Your task to perform on an android device: turn notification dots off Image 0: 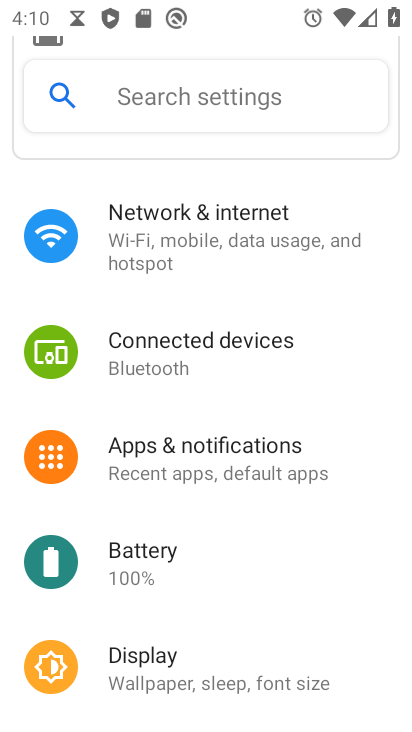
Step 0: click (221, 452)
Your task to perform on an android device: turn notification dots off Image 1: 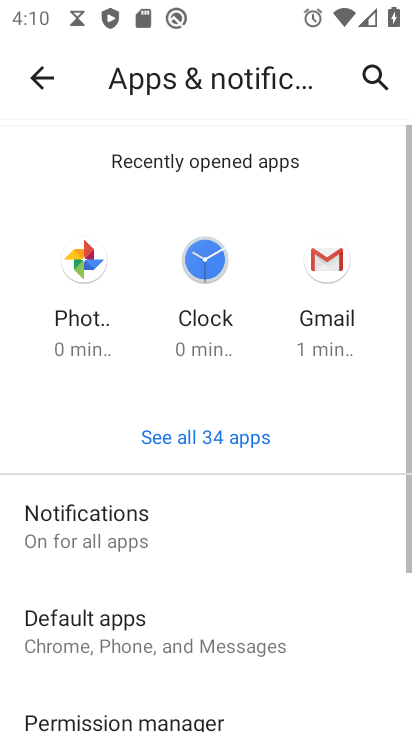
Step 1: click (165, 533)
Your task to perform on an android device: turn notification dots off Image 2: 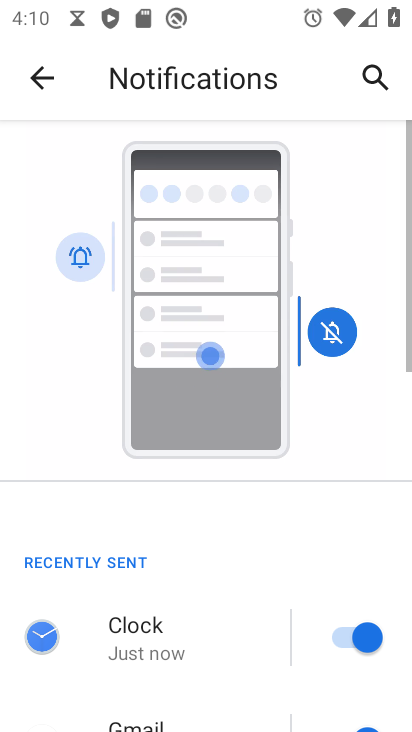
Step 2: drag from (246, 685) to (274, 125)
Your task to perform on an android device: turn notification dots off Image 3: 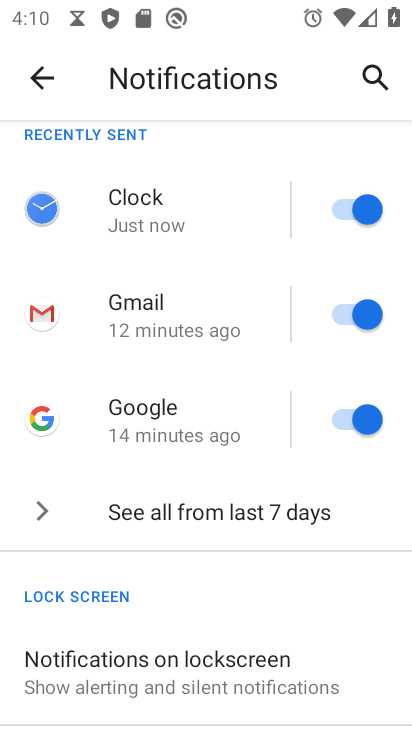
Step 3: drag from (235, 610) to (201, 233)
Your task to perform on an android device: turn notification dots off Image 4: 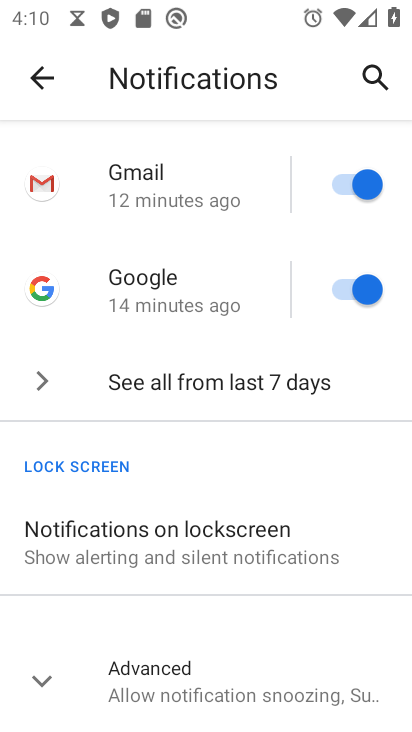
Step 4: click (204, 667)
Your task to perform on an android device: turn notification dots off Image 5: 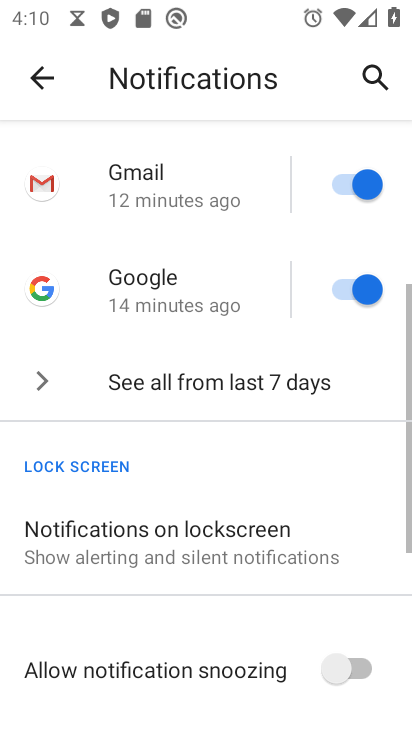
Step 5: drag from (258, 637) to (221, 150)
Your task to perform on an android device: turn notification dots off Image 6: 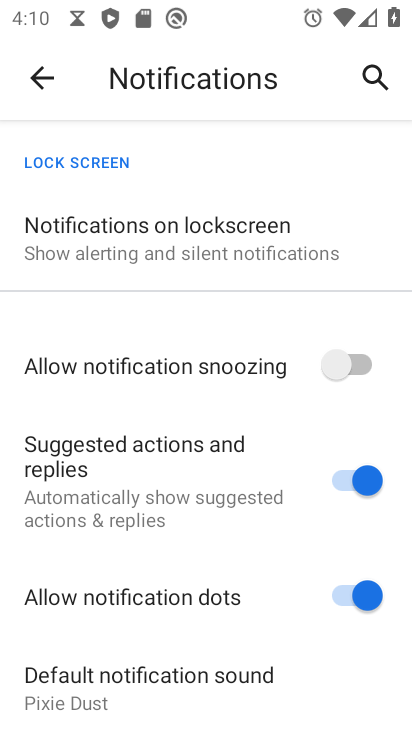
Step 6: click (362, 591)
Your task to perform on an android device: turn notification dots off Image 7: 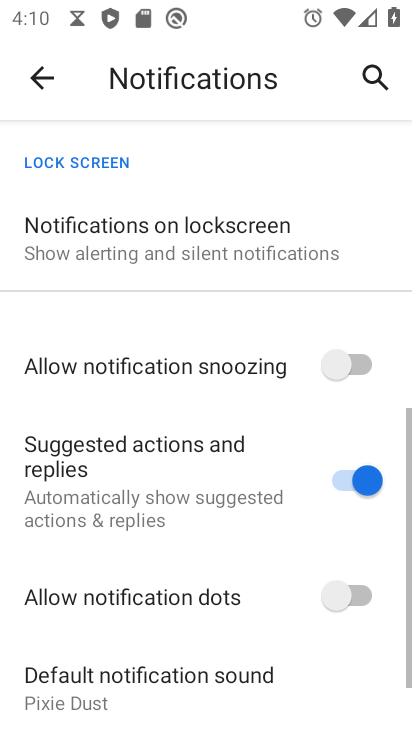
Step 7: task complete